Your task to perform on an android device: Check the news Image 0: 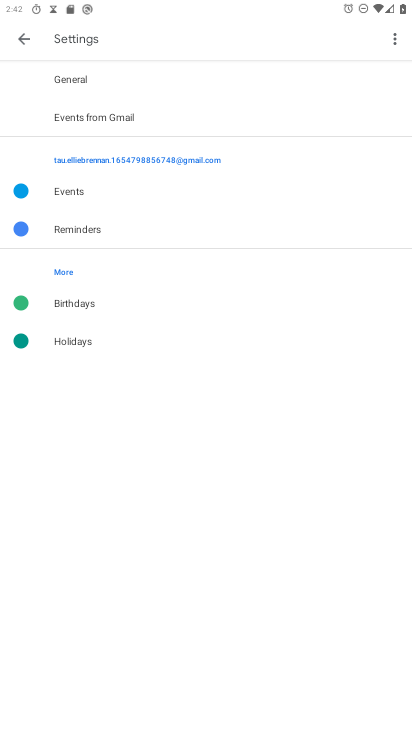
Step 0: press home button
Your task to perform on an android device: Check the news Image 1: 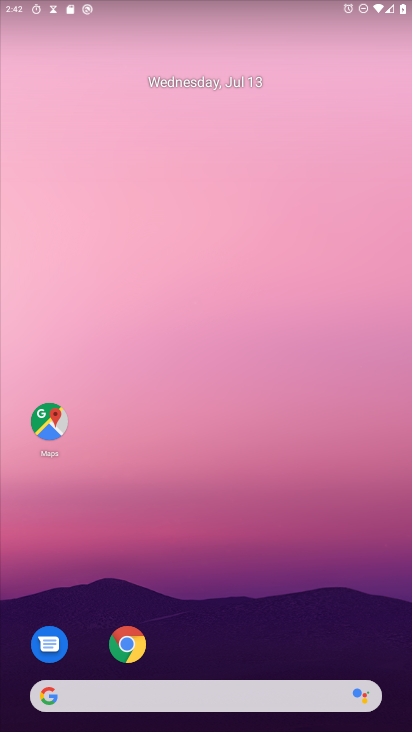
Step 1: click (236, 692)
Your task to perform on an android device: Check the news Image 2: 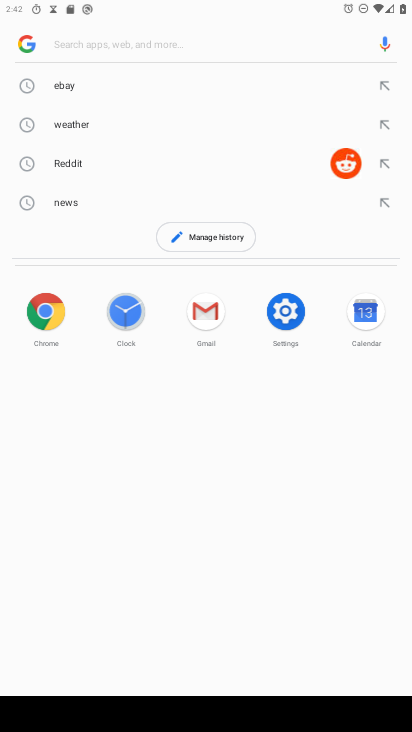
Step 2: click (77, 198)
Your task to perform on an android device: Check the news Image 3: 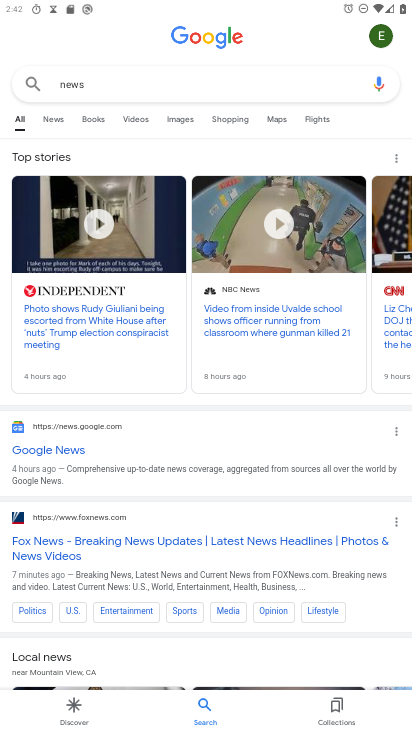
Step 3: task complete